Your task to perform on an android device: empty trash in google photos Image 0: 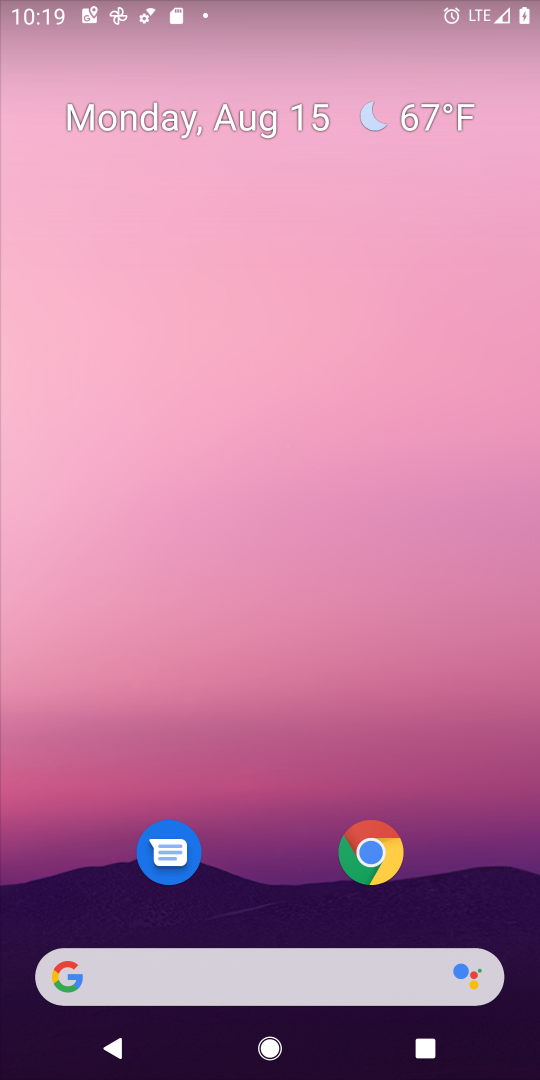
Step 0: drag from (283, 986) to (267, 42)
Your task to perform on an android device: empty trash in google photos Image 1: 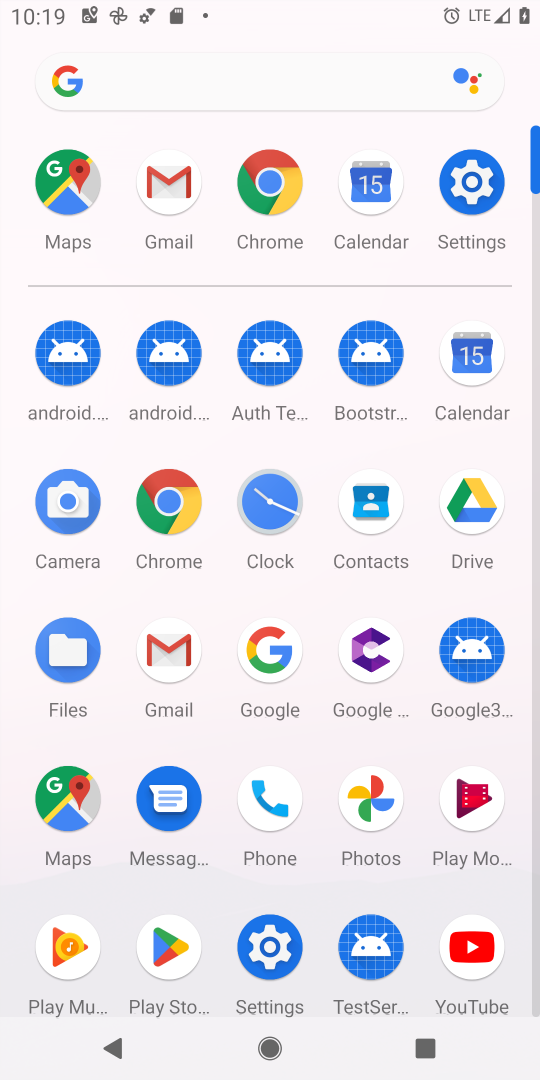
Step 1: click (372, 797)
Your task to perform on an android device: empty trash in google photos Image 2: 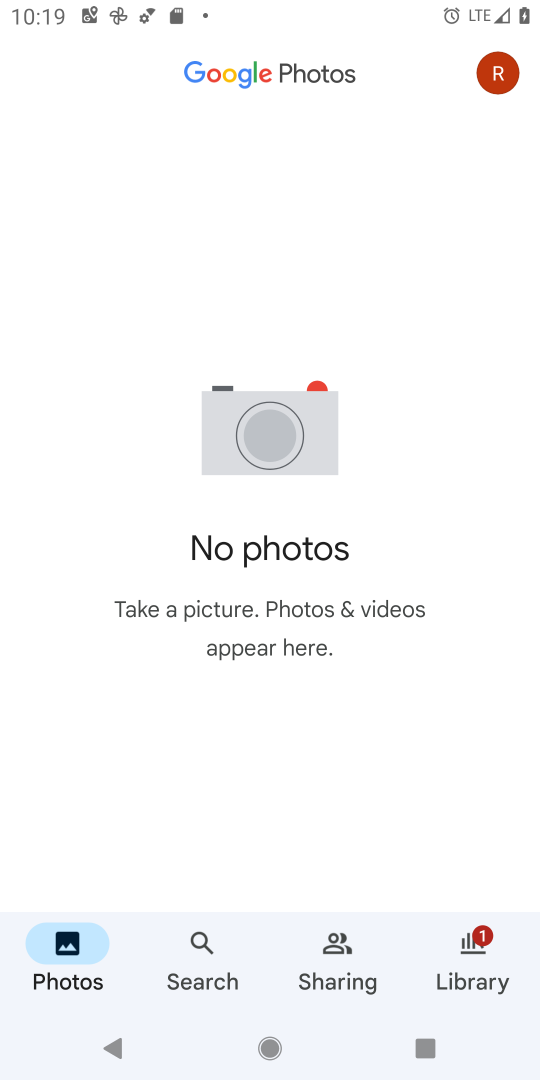
Step 2: click (469, 936)
Your task to perform on an android device: empty trash in google photos Image 3: 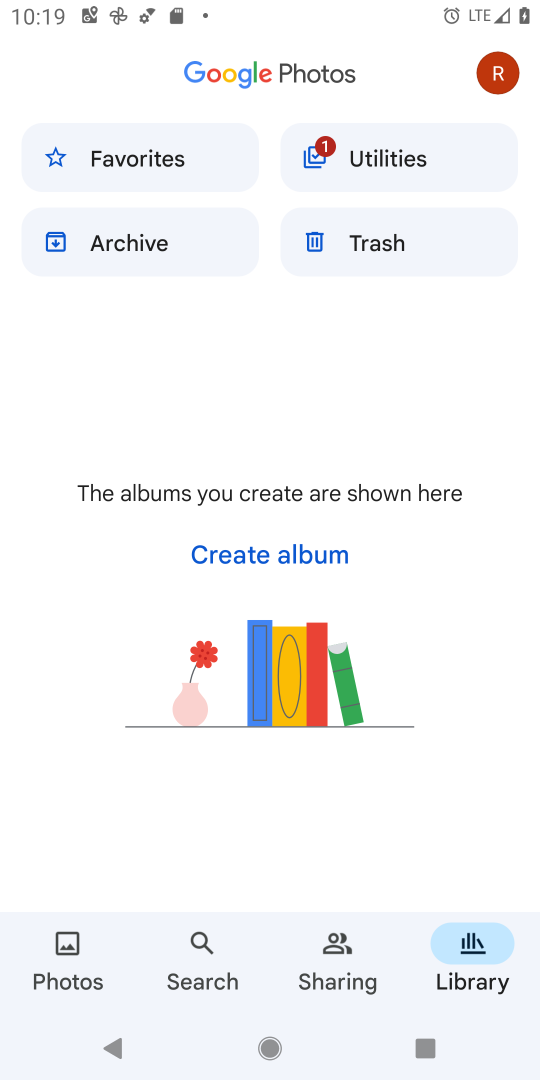
Step 3: click (375, 243)
Your task to perform on an android device: empty trash in google photos Image 4: 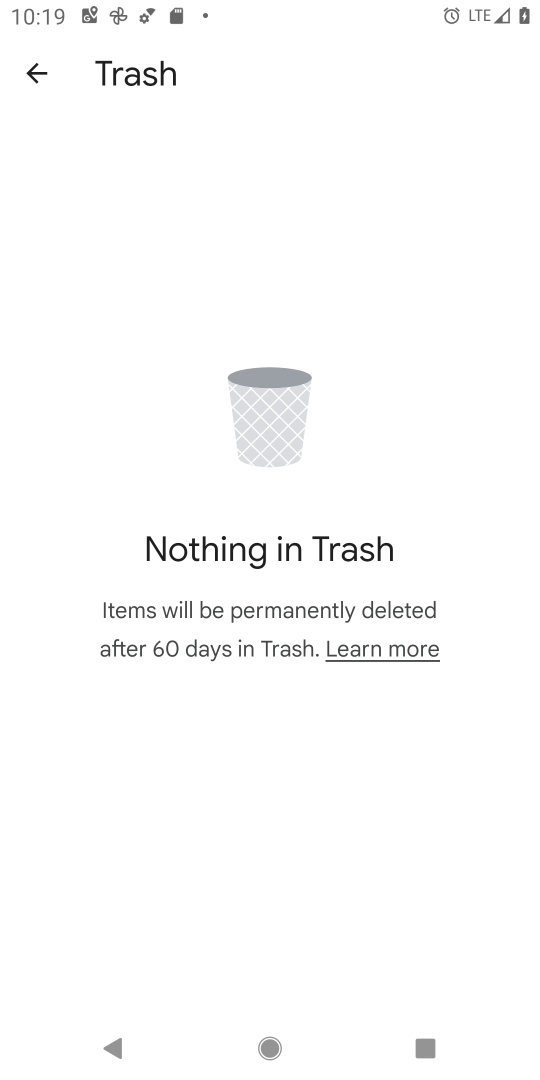
Step 4: task complete